Your task to perform on an android device: Search for razer kraken on walmart, select the first entry, and add it to the cart. Image 0: 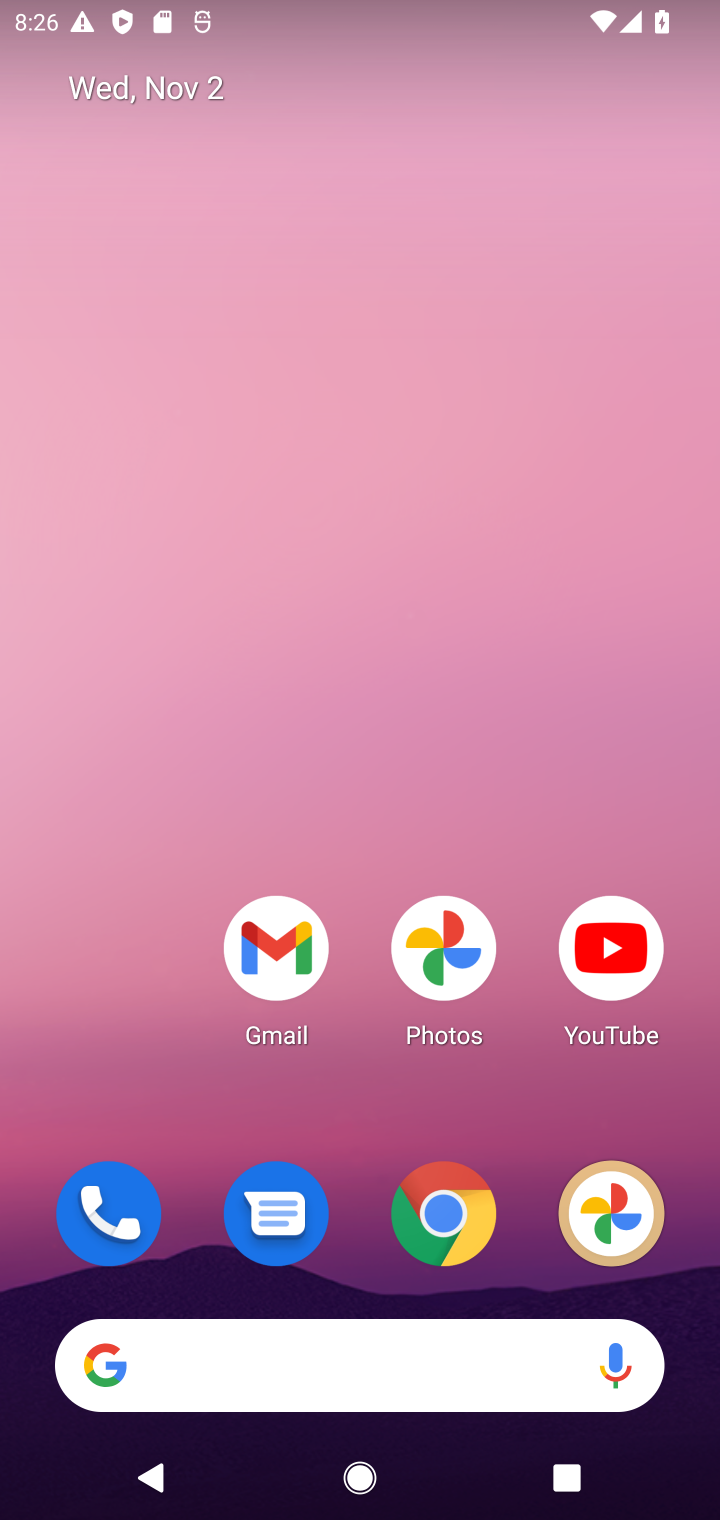
Step 0: click (446, 1226)
Your task to perform on an android device: Search for razer kraken on walmart, select the first entry, and add it to the cart. Image 1: 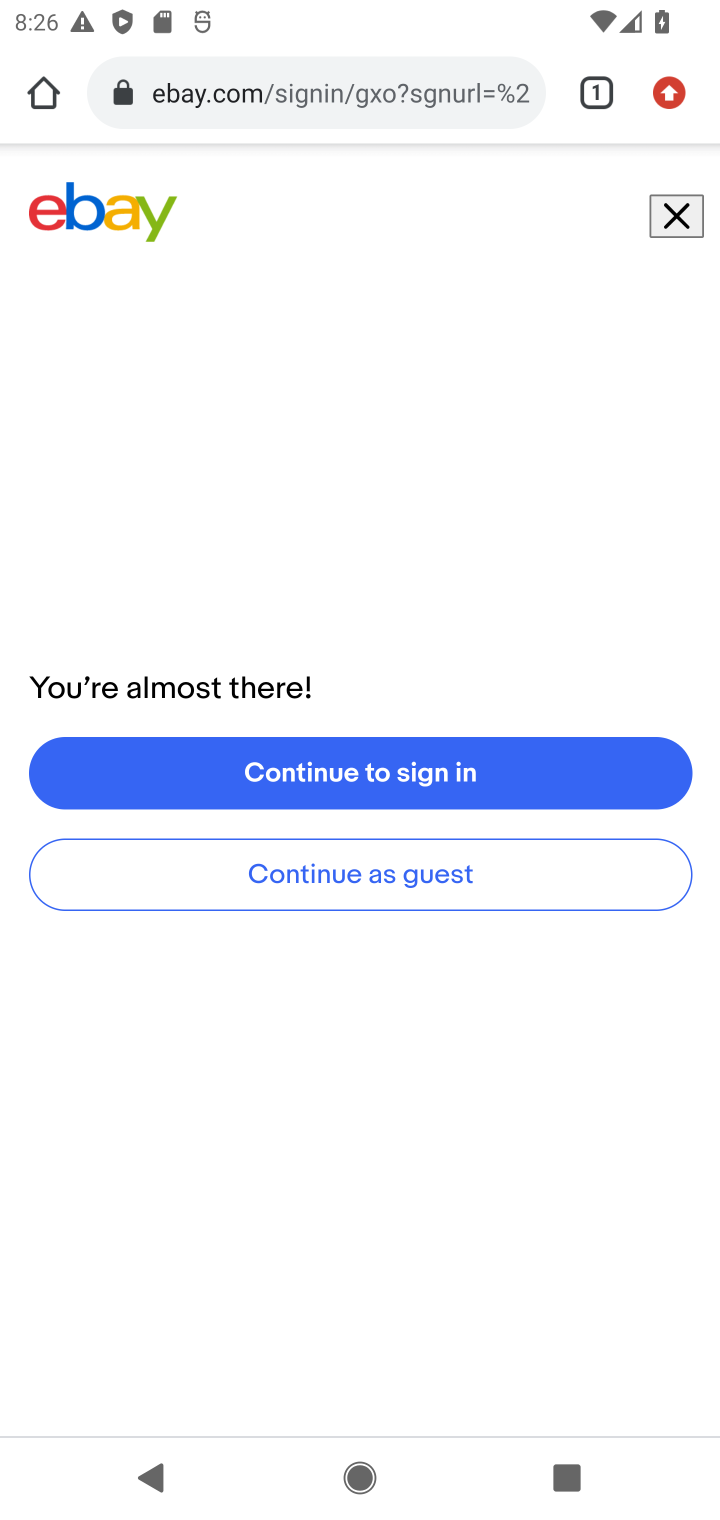
Step 1: click (266, 103)
Your task to perform on an android device: Search for razer kraken on walmart, select the first entry, and add it to the cart. Image 2: 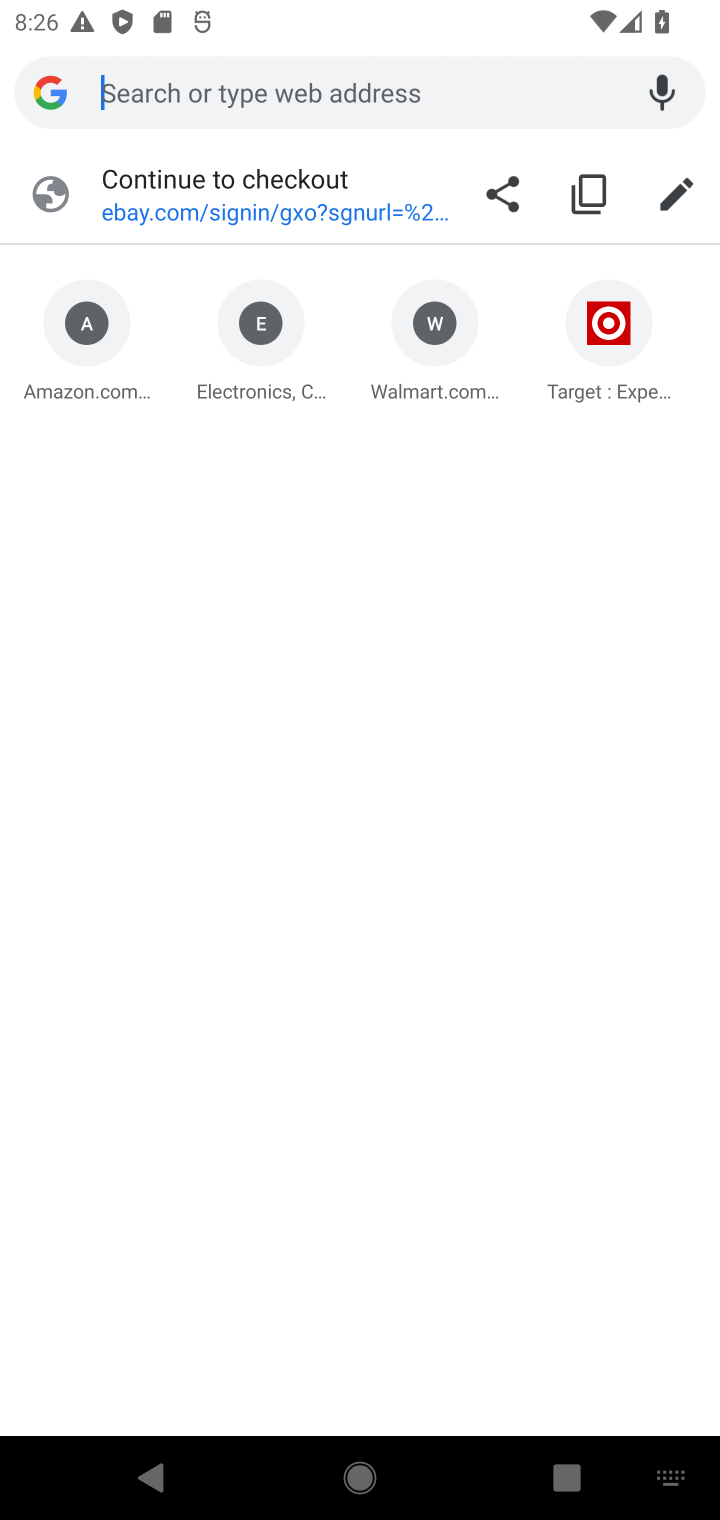
Step 2: type "walmart.com"
Your task to perform on an android device: Search for razer kraken on walmart, select the first entry, and add it to the cart. Image 3: 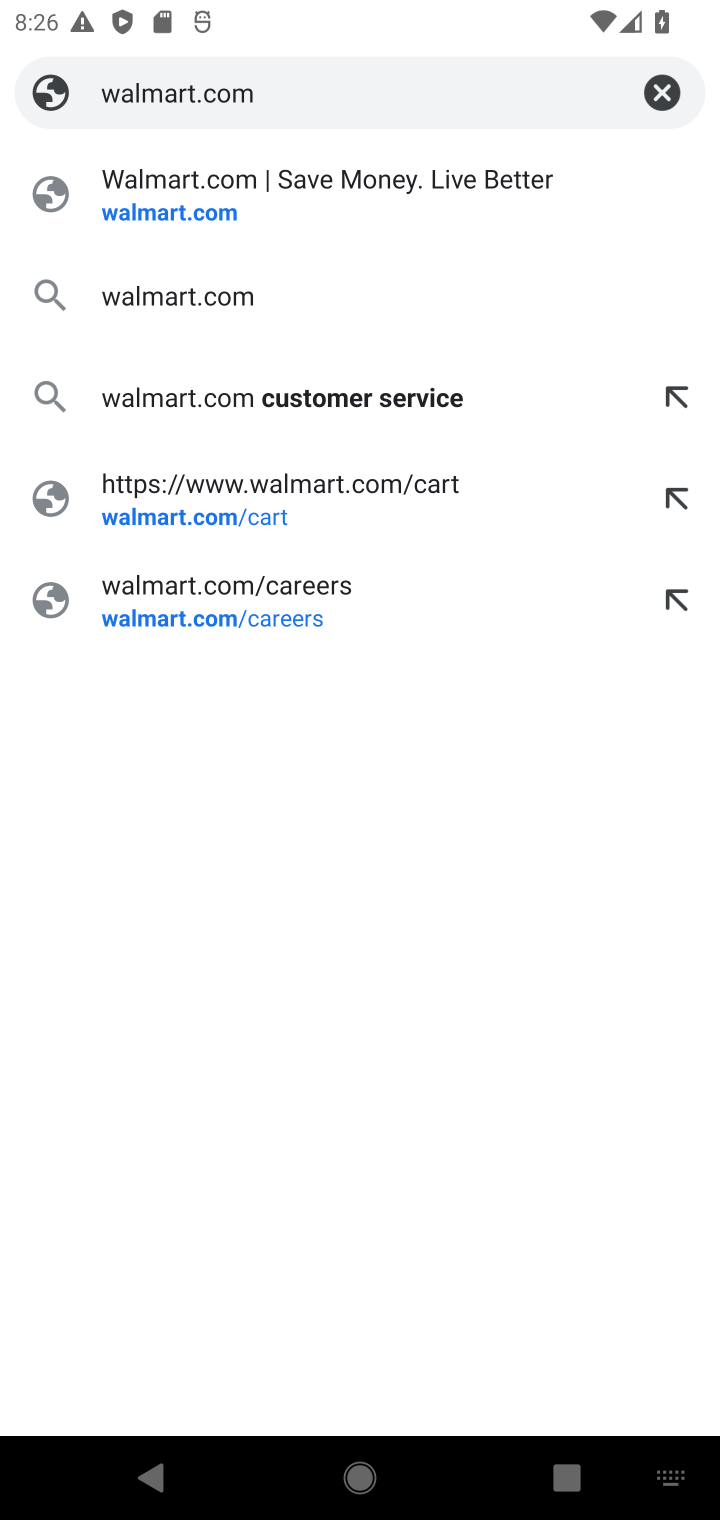
Step 3: click (176, 211)
Your task to perform on an android device: Search for razer kraken on walmart, select the first entry, and add it to the cart. Image 4: 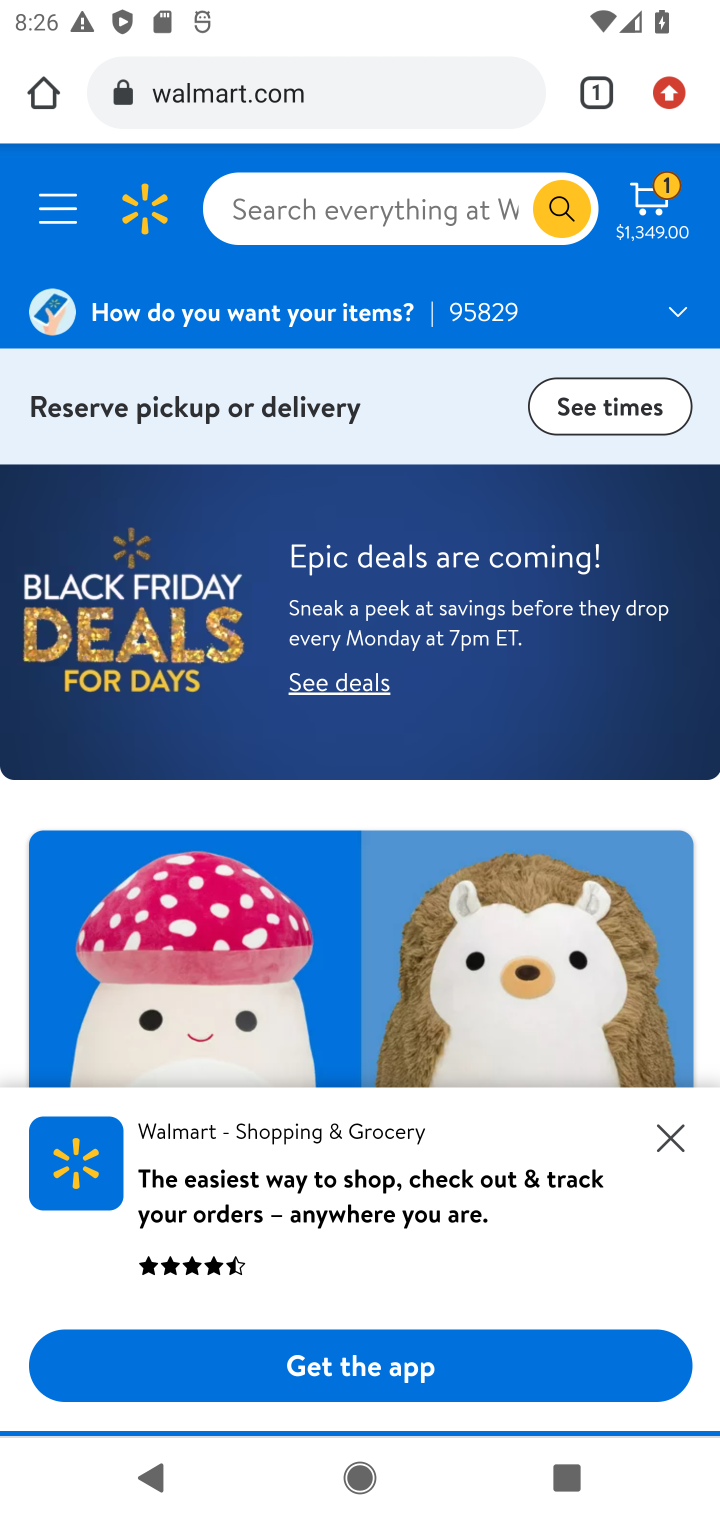
Step 4: click (321, 222)
Your task to perform on an android device: Search for razer kraken on walmart, select the first entry, and add it to the cart. Image 5: 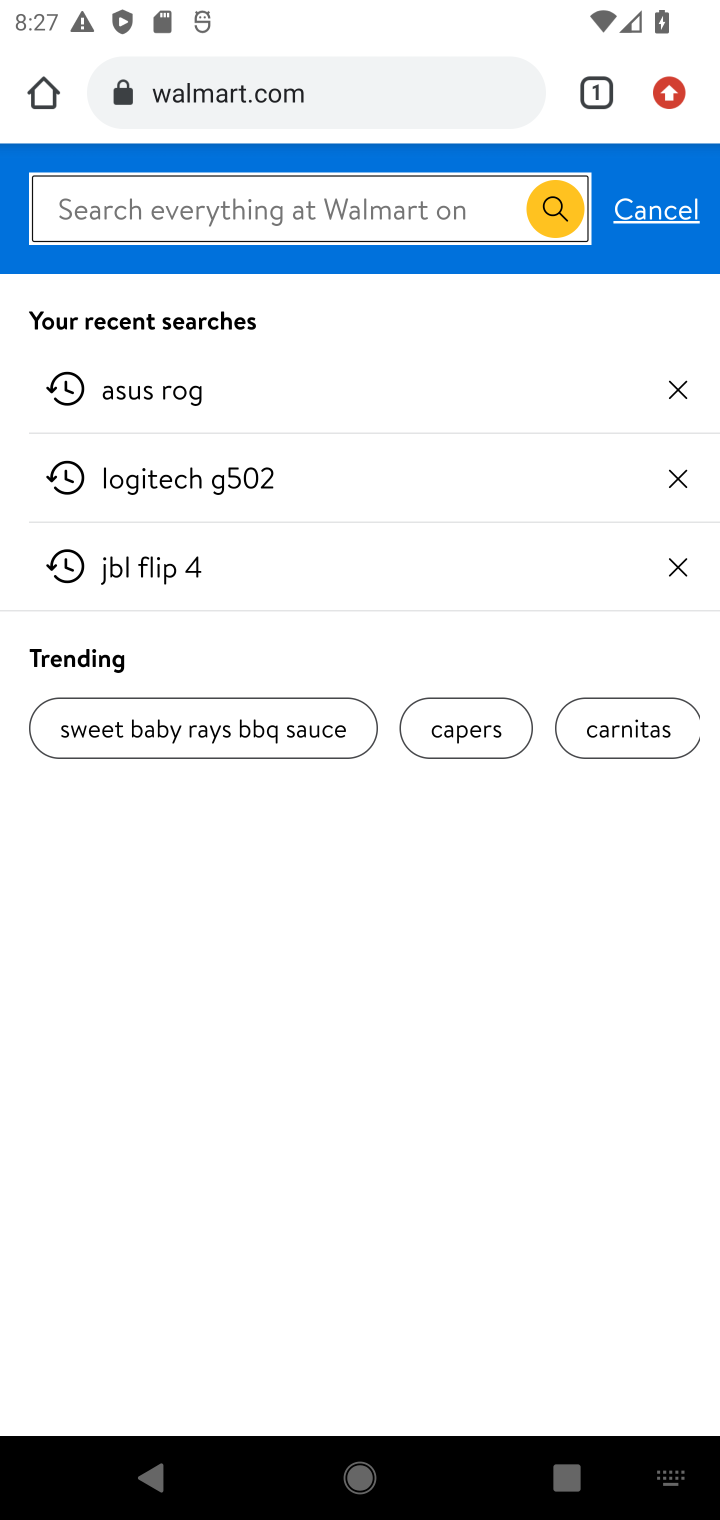
Step 5: type "razer kraken"
Your task to perform on an android device: Search for razer kraken on walmart, select the first entry, and add it to the cart. Image 6: 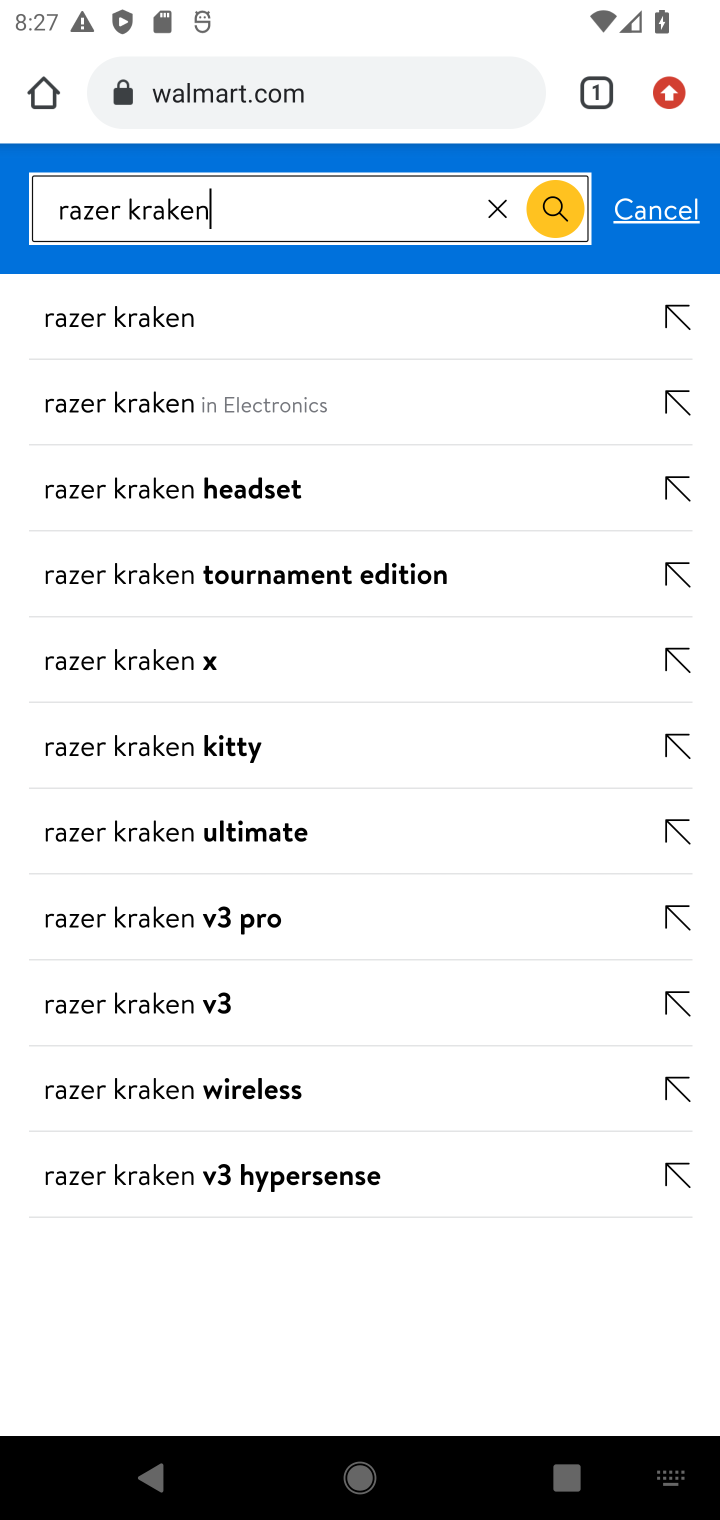
Step 6: click (89, 327)
Your task to perform on an android device: Search for razer kraken on walmart, select the first entry, and add it to the cart. Image 7: 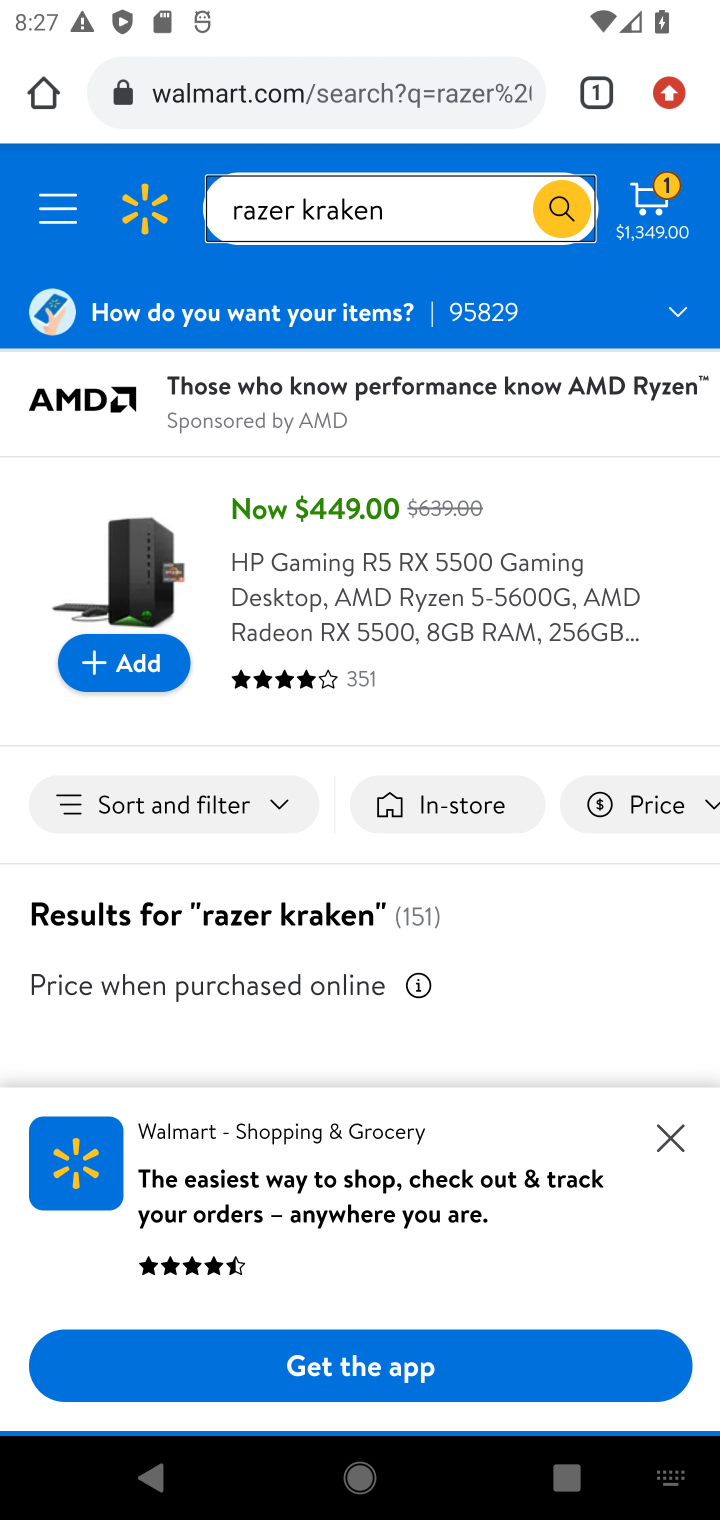
Step 7: drag from (510, 921) to (478, 452)
Your task to perform on an android device: Search for razer kraken on walmart, select the first entry, and add it to the cart. Image 8: 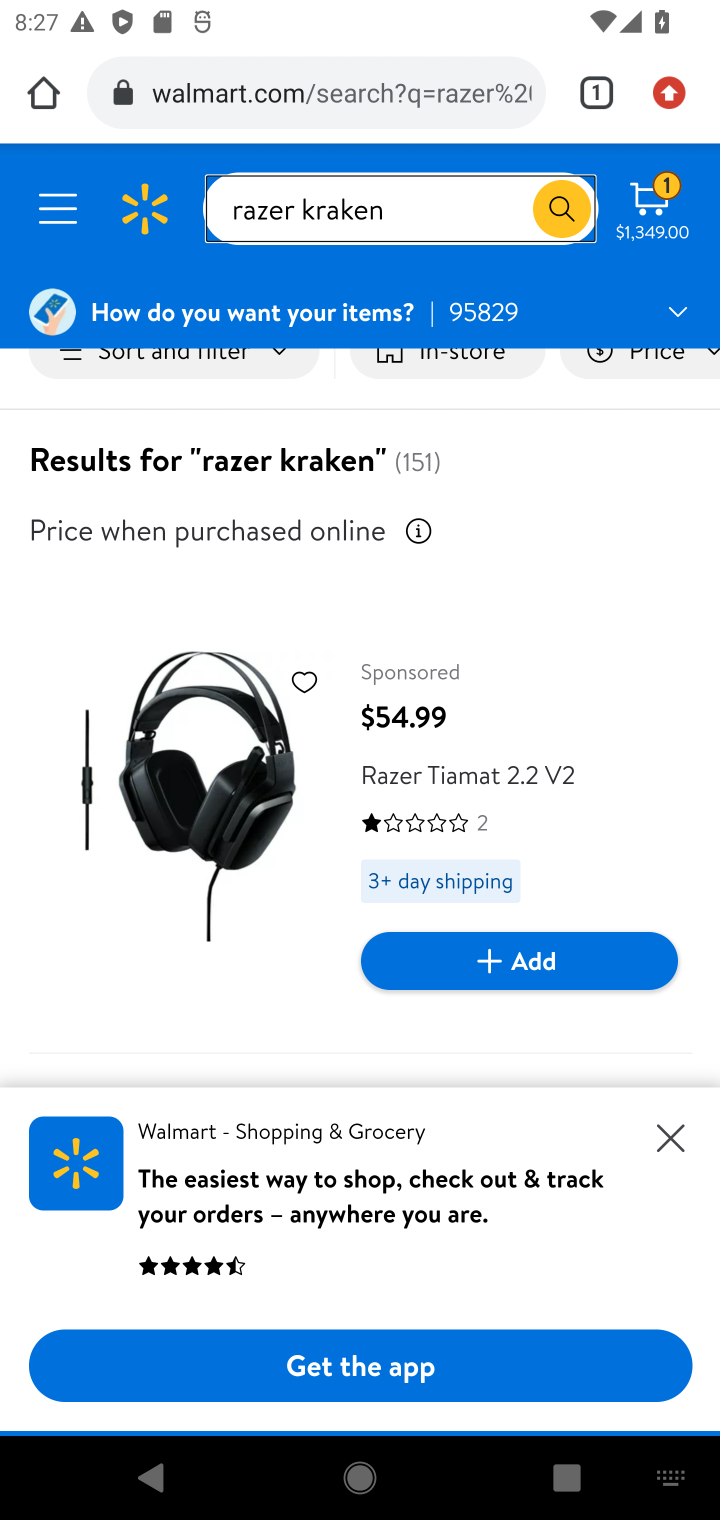
Step 8: drag from (582, 823) to (590, 234)
Your task to perform on an android device: Search for razer kraken on walmart, select the first entry, and add it to the cart. Image 9: 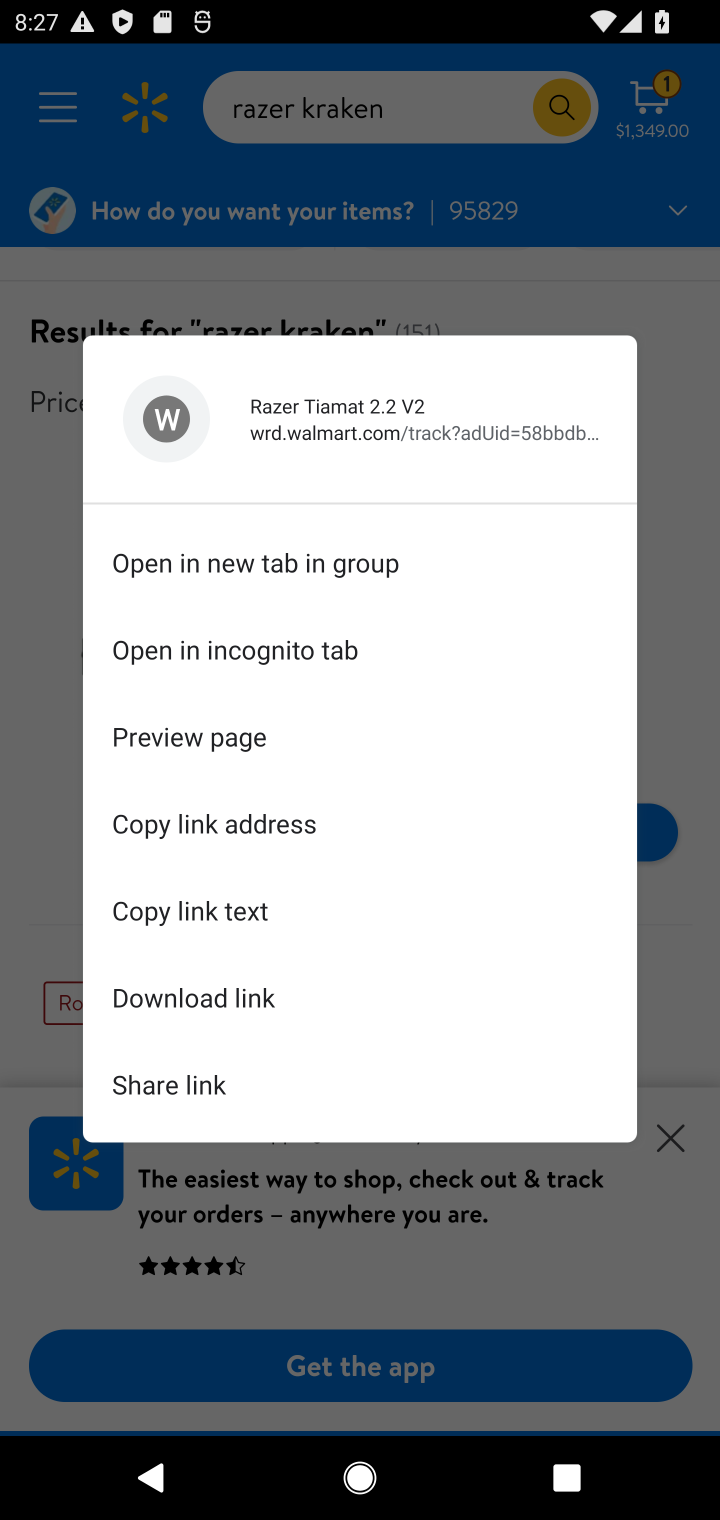
Step 9: click (689, 675)
Your task to perform on an android device: Search for razer kraken on walmart, select the first entry, and add it to the cart. Image 10: 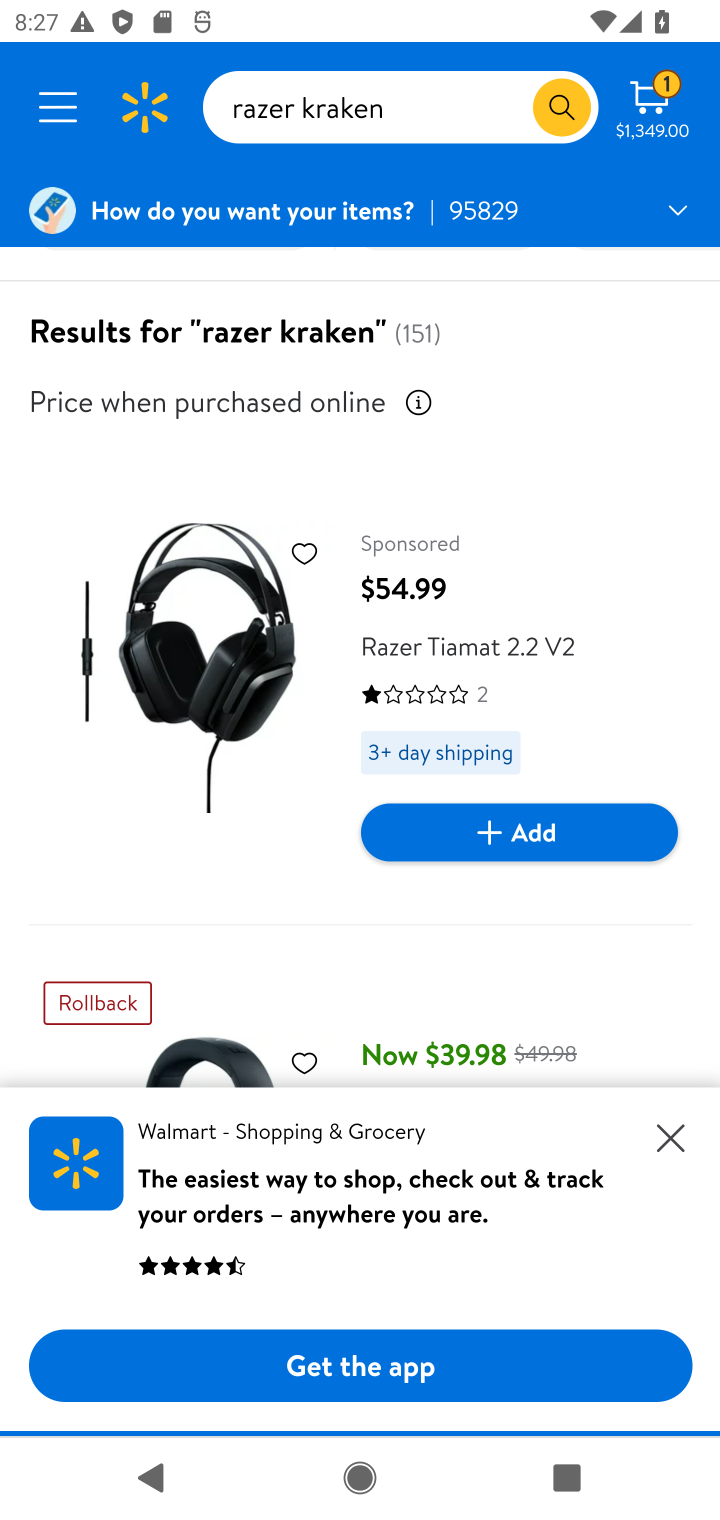
Step 10: drag from (282, 814) to (326, 388)
Your task to perform on an android device: Search for razer kraken on walmart, select the first entry, and add it to the cart. Image 11: 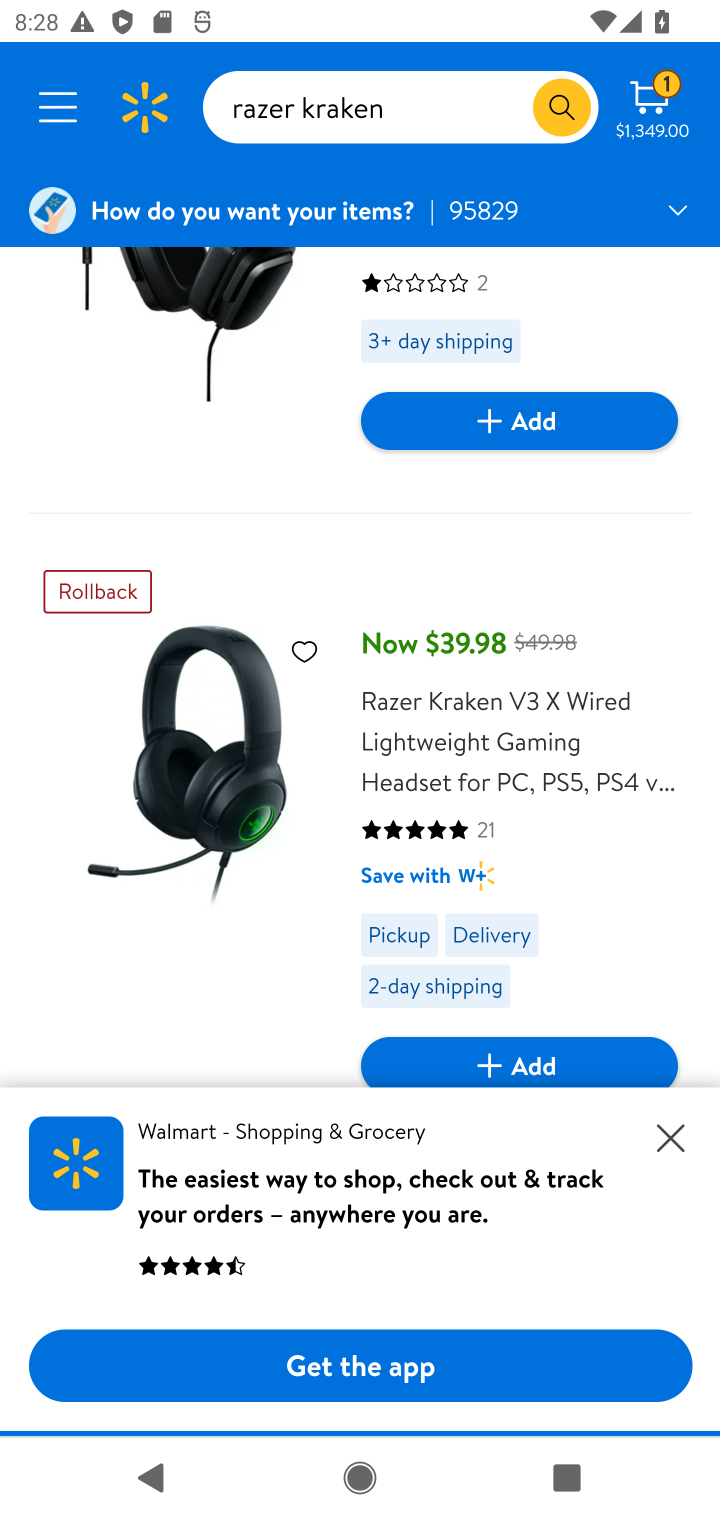
Step 11: drag from (250, 443) to (254, 1005)
Your task to perform on an android device: Search for razer kraken on walmart, select the first entry, and add it to the cart. Image 12: 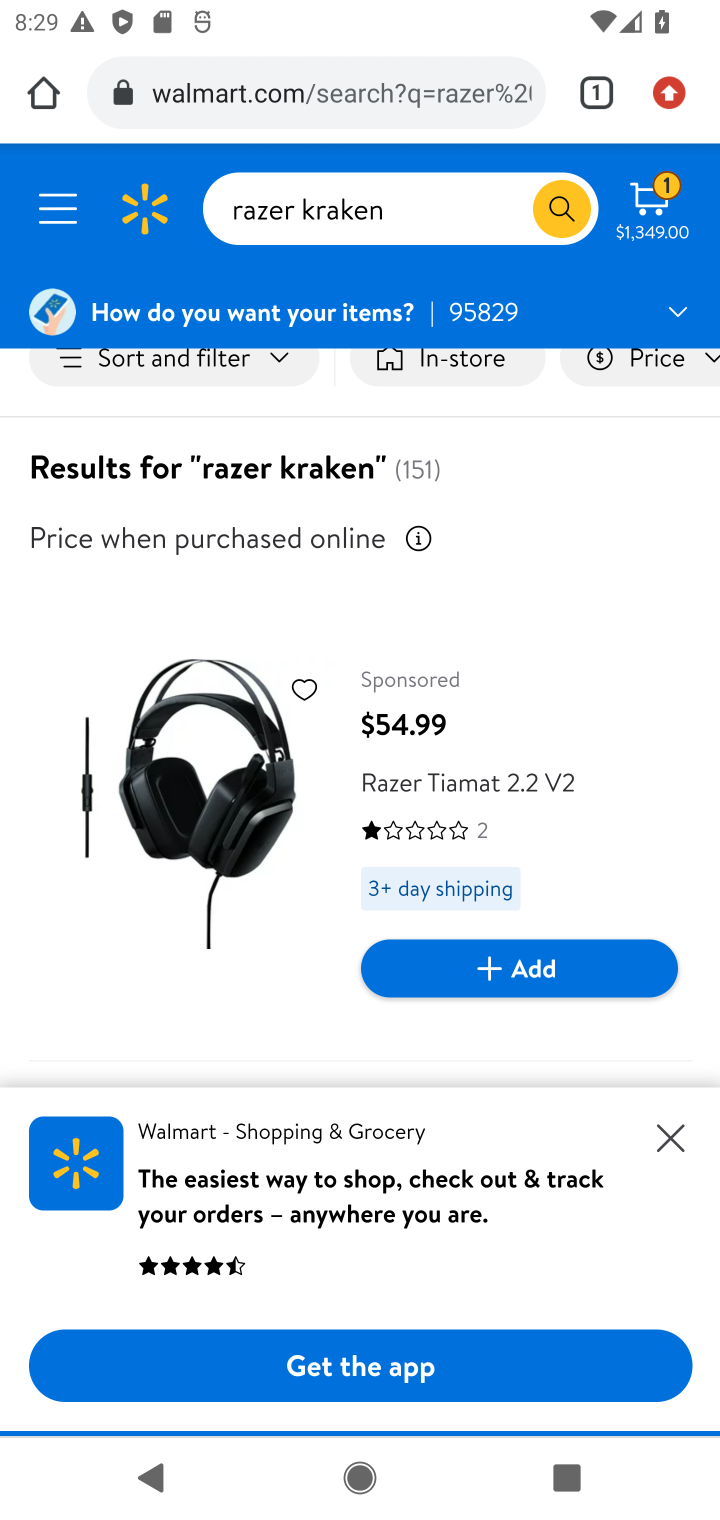
Step 12: click (540, 908)
Your task to perform on an android device: Search for razer kraken on walmart, select the first entry, and add it to the cart. Image 13: 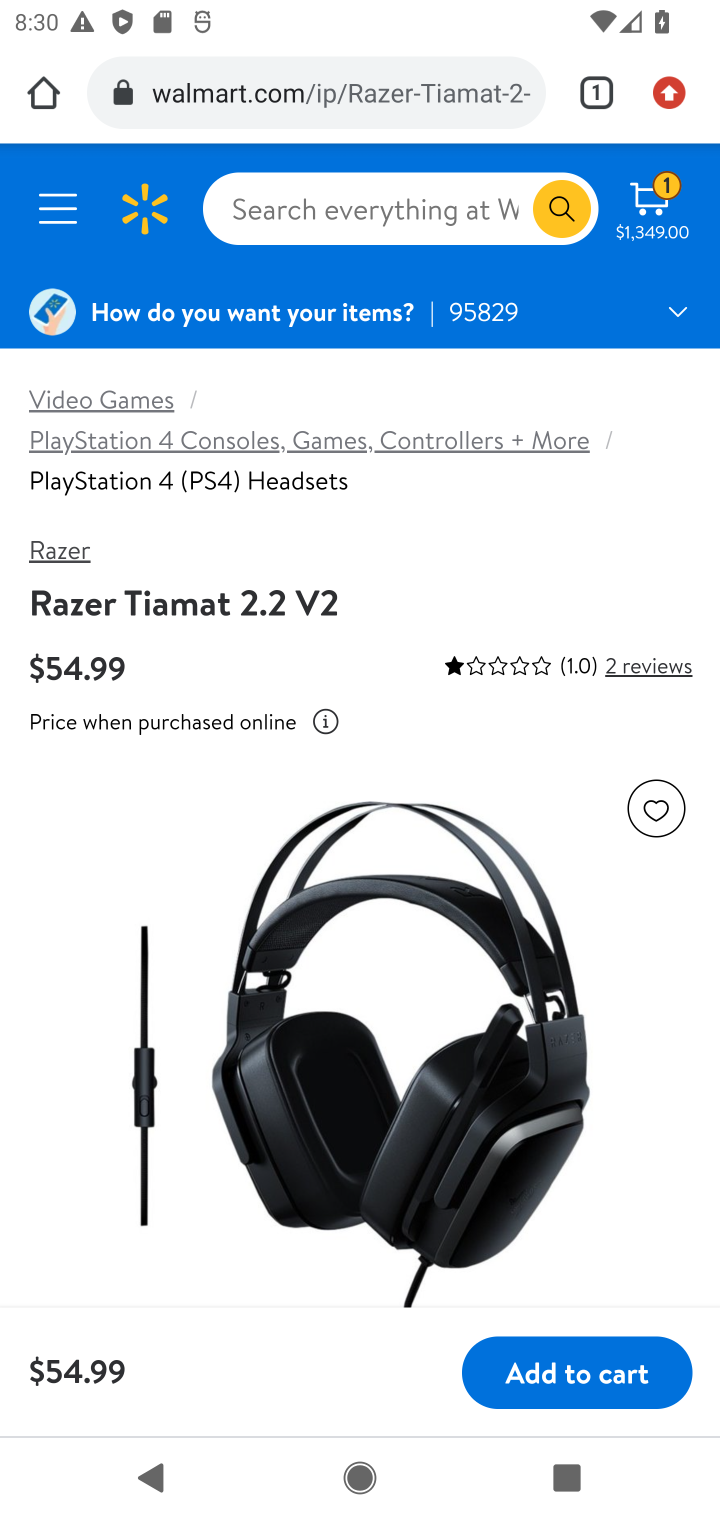
Step 13: task complete